Your task to perform on an android device: Search for "panasonic triple a" on bestbuy, select the first entry, add it to the cart, then select checkout. Image 0: 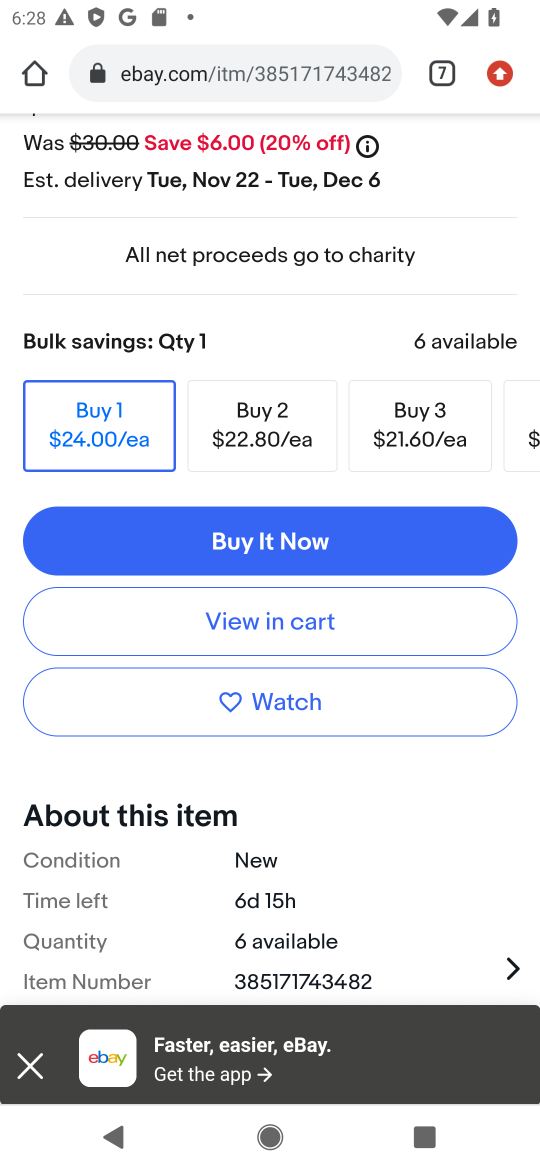
Step 0: click (434, 68)
Your task to perform on an android device: Search for "panasonic triple a" on bestbuy, select the first entry, add it to the cart, then select checkout. Image 1: 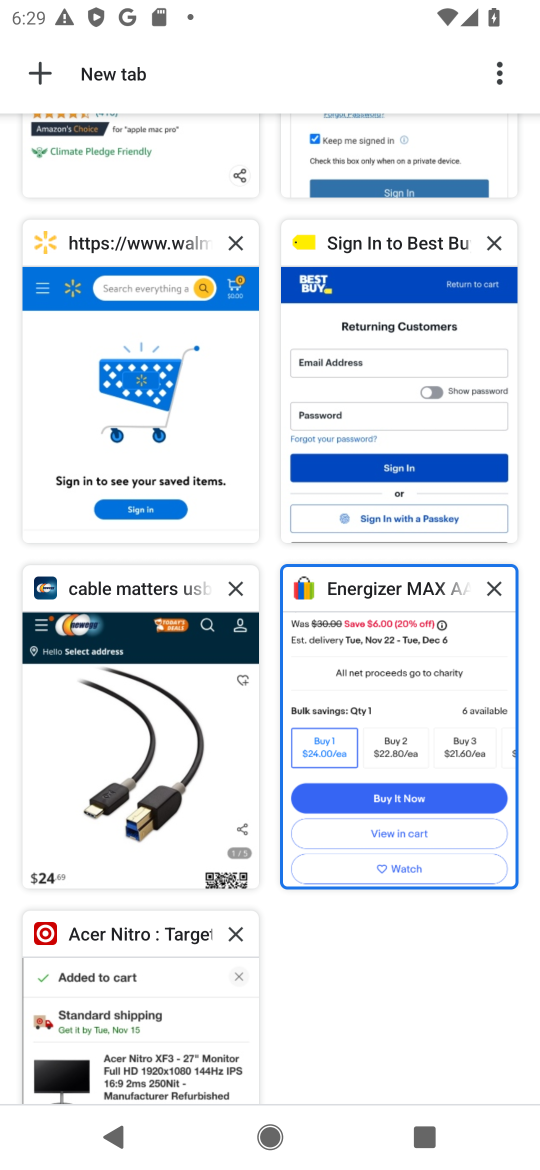
Step 1: click (410, 289)
Your task to perform on an android device: Search for "panasonic triple a" on bestbuy, select the first entry, add it to the cart, then select checkout. Image 2: 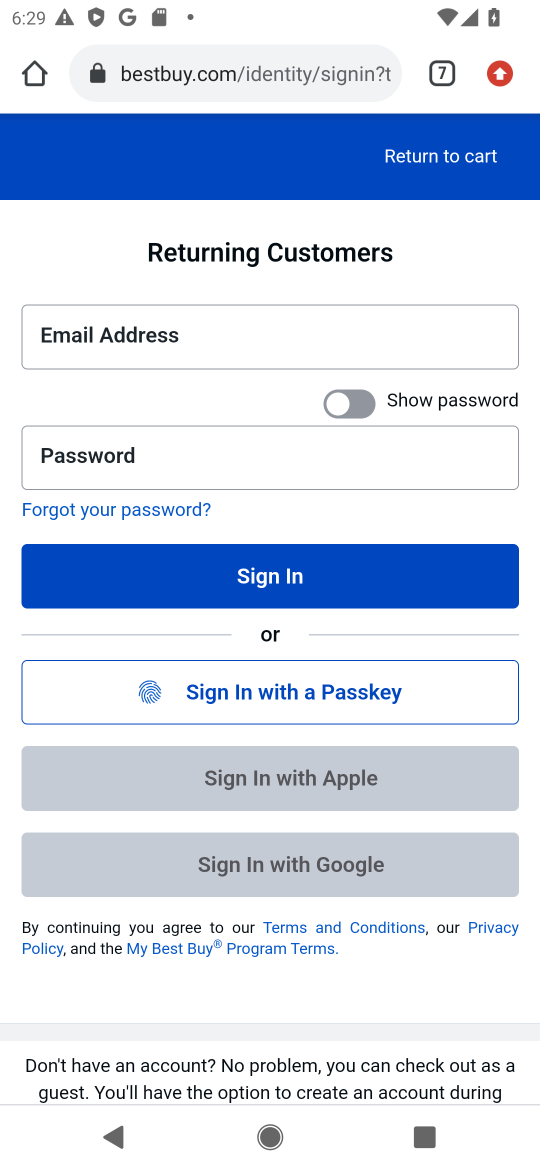
Step 2: click (444, 155)
Your task to perform on an android device: Search for "panasonic triple a" on bestbuy, select the first entry, add it to the cart, then select checkout. Image 3: 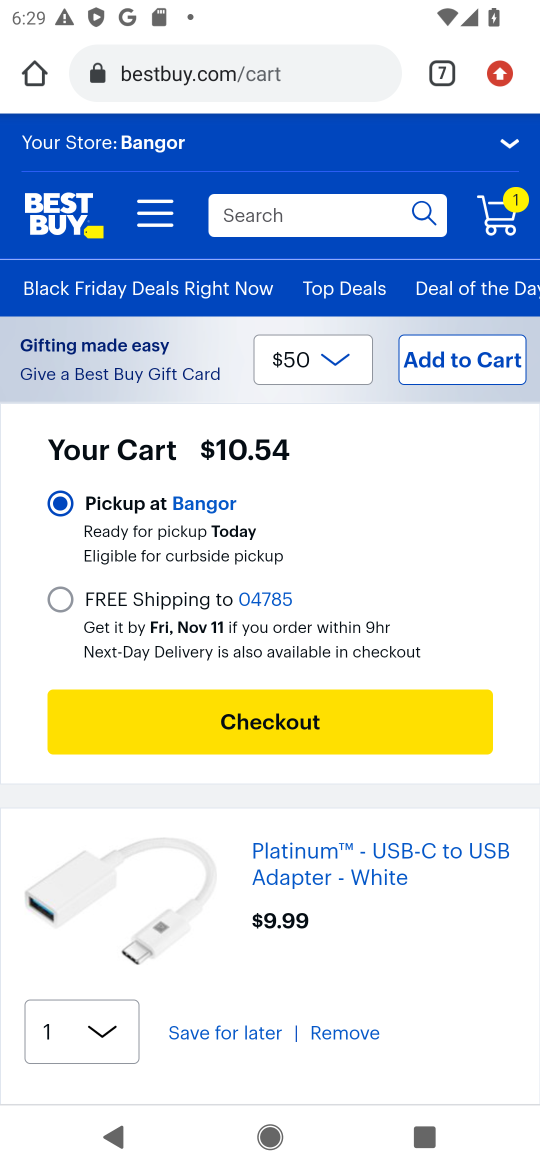
Step 3: click (295, 216)
Your task to perform on an android device: Search for "panasonic triple a" on bestbuy, select the first entry, add it to the cart, then select checkout. Image 4: 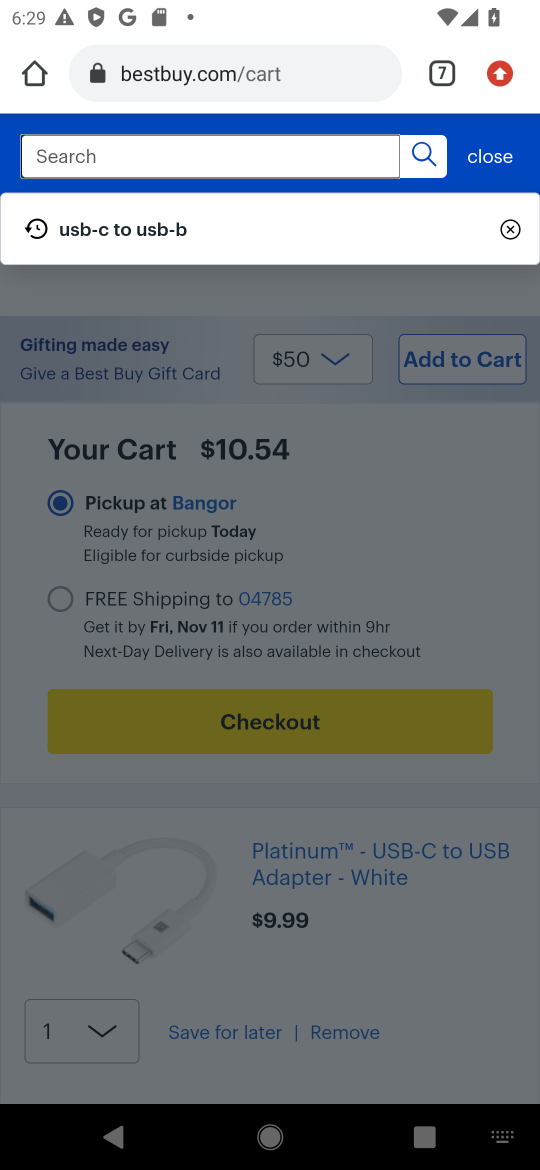
Step 4: type "panasonic triple a battery"
Your task to perform on an android device: Search for "panasonic triple a" on bestbuy, select the first entry, add it to the cart, then select checkout. Image 5: 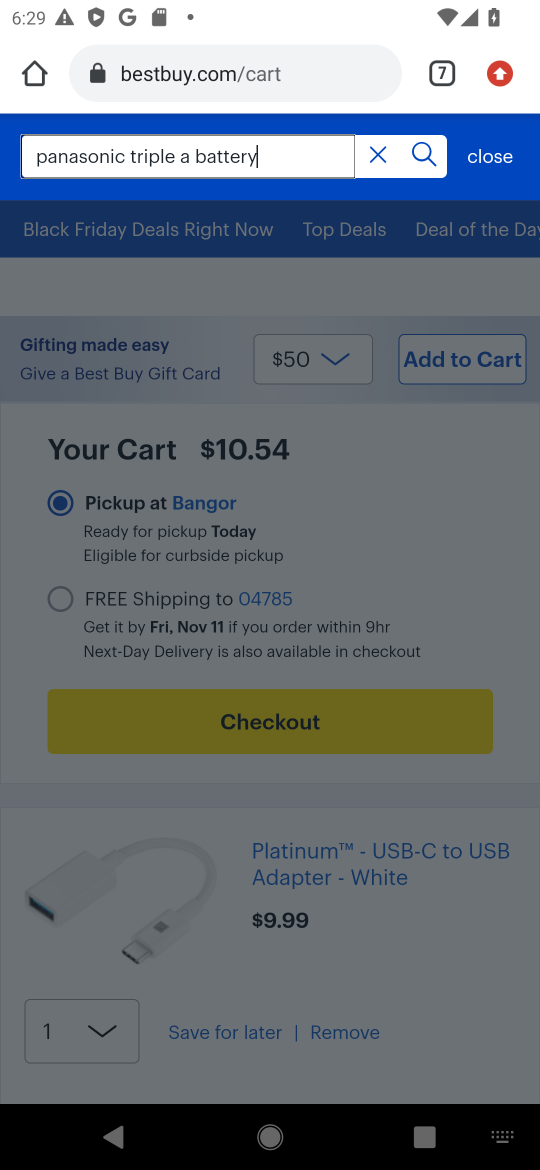
Step 5: click (420, 155)
Your task to perform on an android device: Search for "panasonic triple a" on bestbuy, select the first entry, add it to the cart, then select checkout. Image 6: 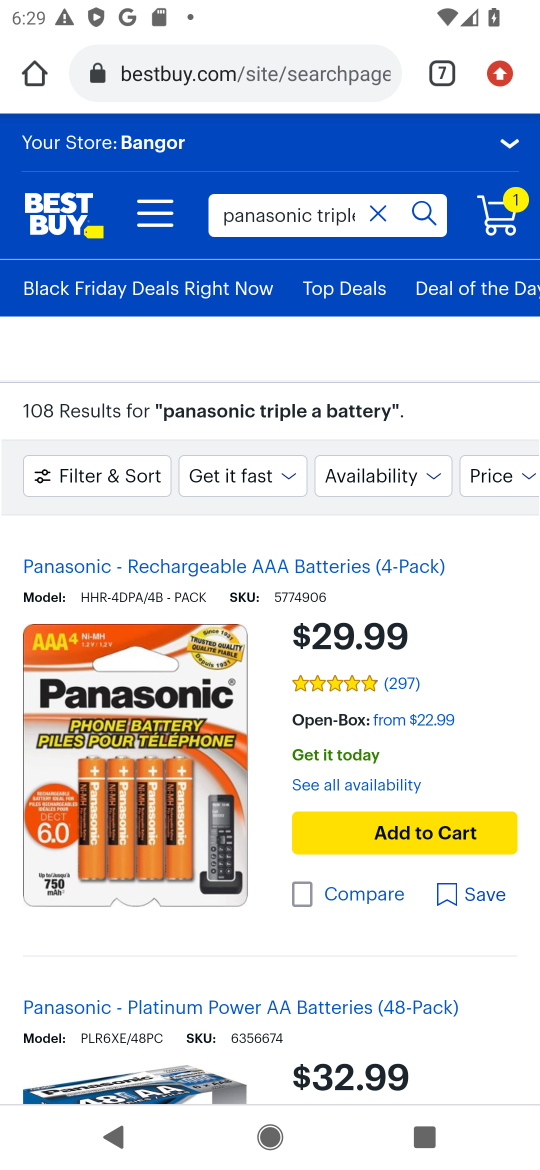
Step 6: click (367, 827)
Your task to perform on an android device: Search for "panasonic triple a" on bestbuy, select the first entry, add it to the cart, then select checkout. Image 7: 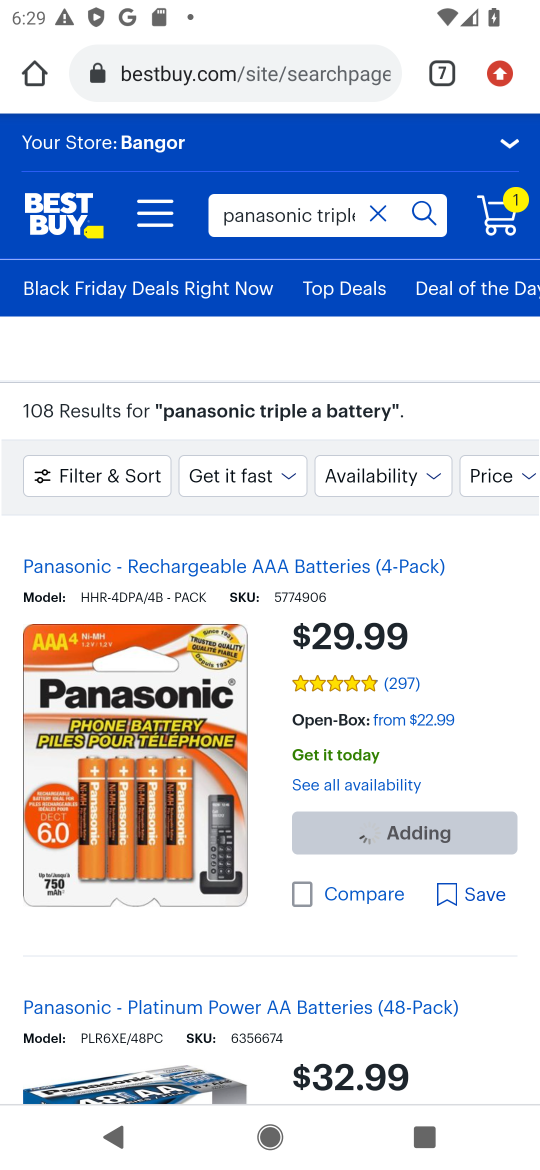
Step 7: click (496, 229)
Your task to perform on an android device: Search for "panasonic triple a" on bestbuy, select the first entry, add it to the cart, then select checkout. Image 8: 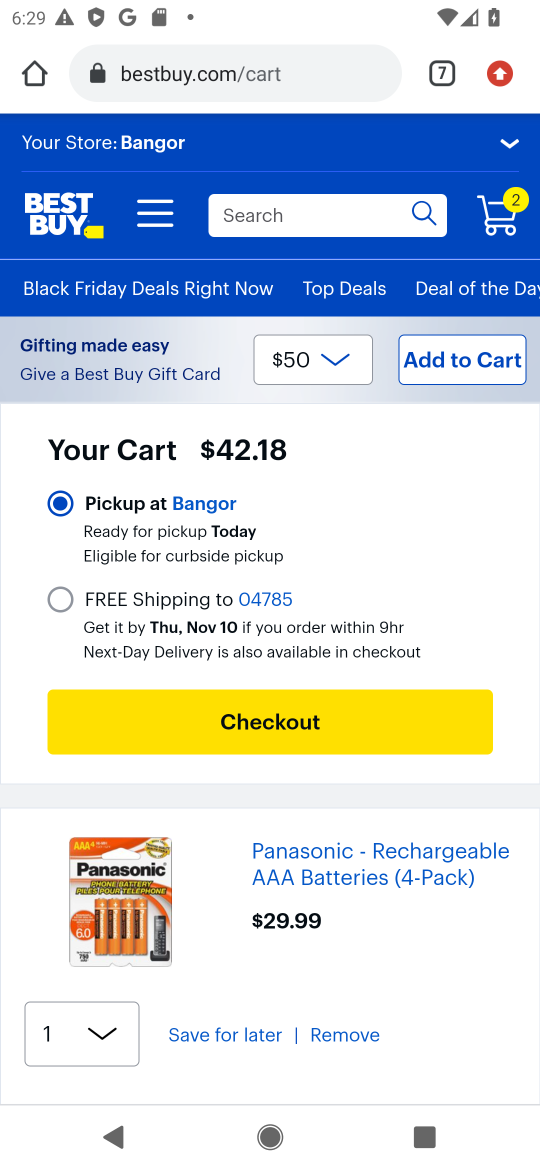
Step 8: click (303, 732)
Your task to perform on an android device: Search for "panasonic triple a" on bestbuy, select the first entry, add it to the cart, then select checkout. Image 9: 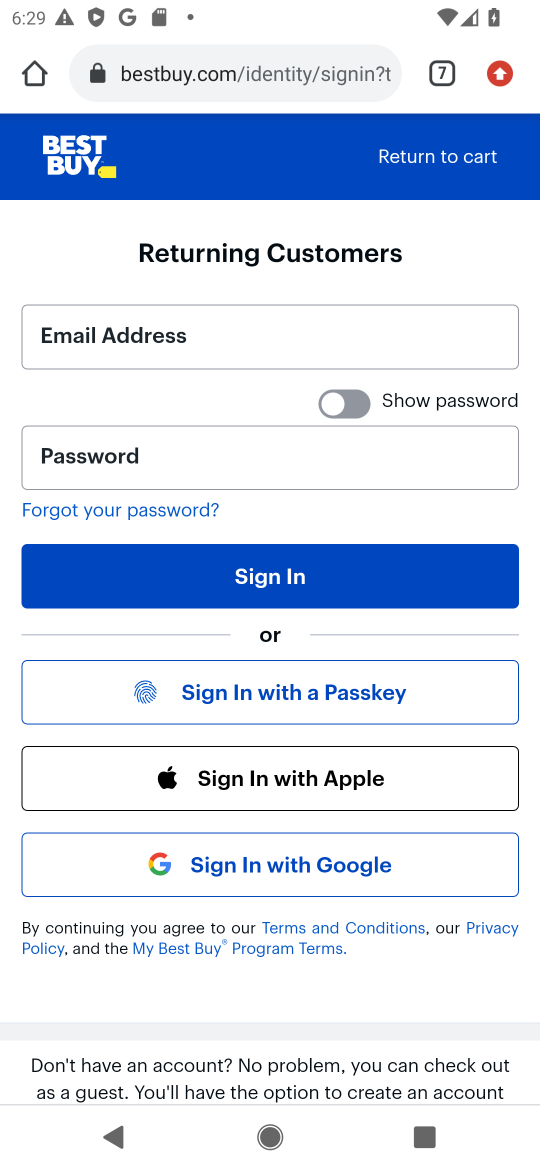
Step 9: task complete